Your task to perform on an android device: delete a single message in the gmail app Image 0: 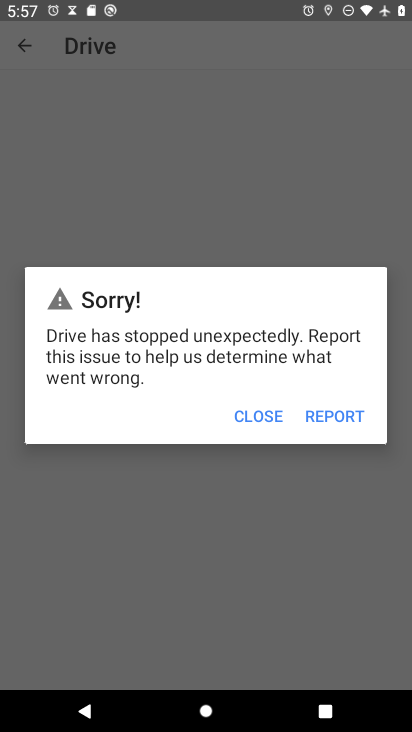
Step 0: press back button
Your task to perform on an android device: delete a single message in the gmail app Image 1: 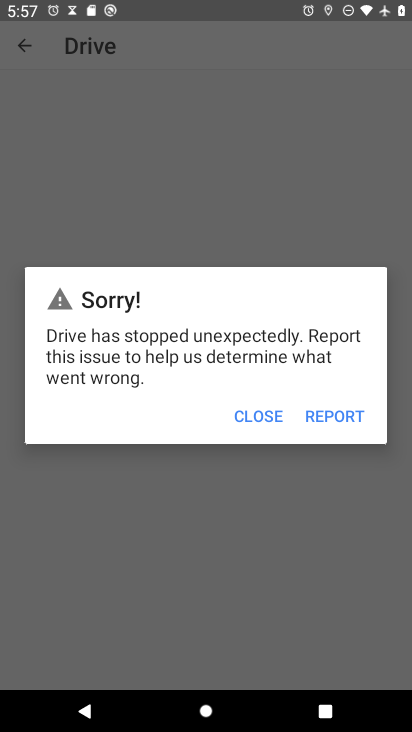
Step 1: press home button
Your task to perform on an android device: delete a single message in the gmail app Image 2: 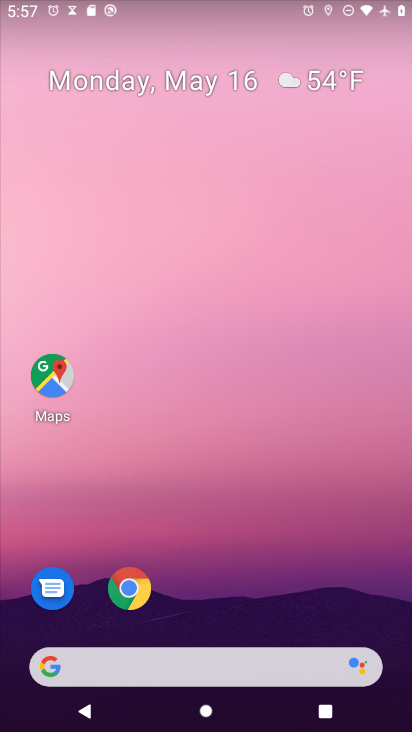
Step 2: drag from (221, 572) to (149, 54)
Your task to perform on an android device: delete a single message in the gmail app Image 3: 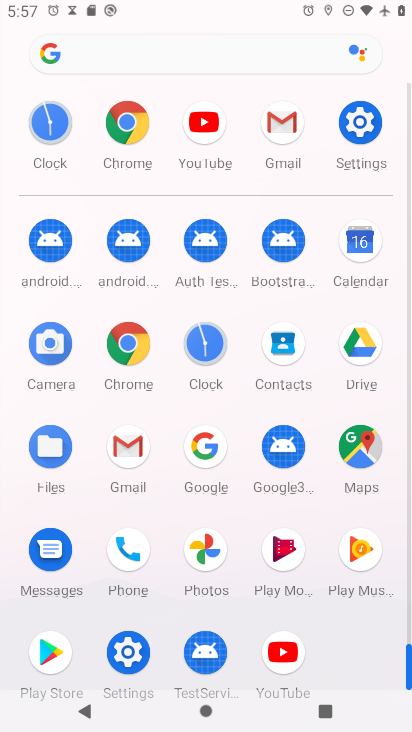
Step 3: click (131, 442)
Your task to perform on an android device: delete a single message in the gmail app Image 4: 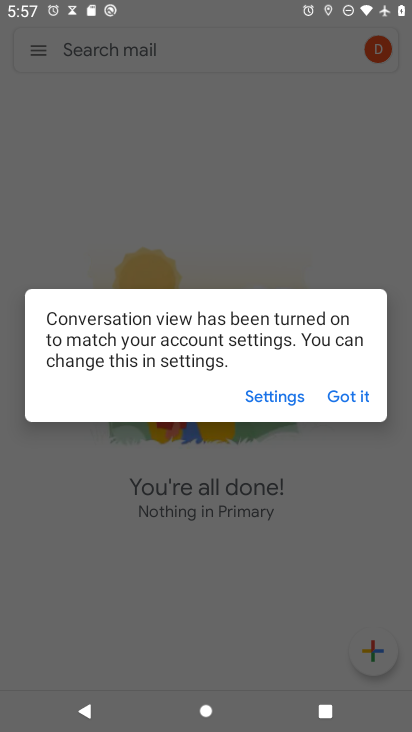
Step 4: click (340, 388)
Your task to perform on an android device: delete a single message in the gmail app Image 5: 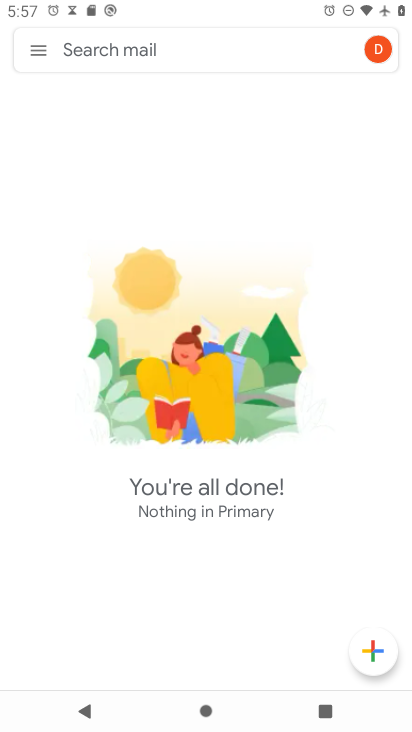
Step 5: click (50, 40)
Your task to perform on an android device: delete a single message in the gmail app Image 6: 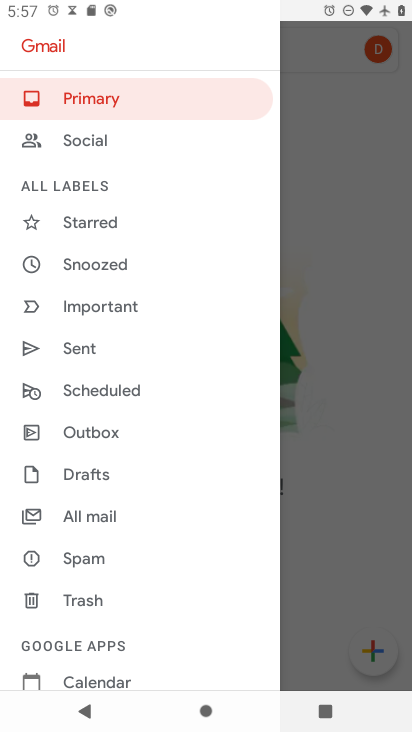
Step 6: click (122, 501)
Your task to perform on an android device: delete a single message in the gmail app Image 7: 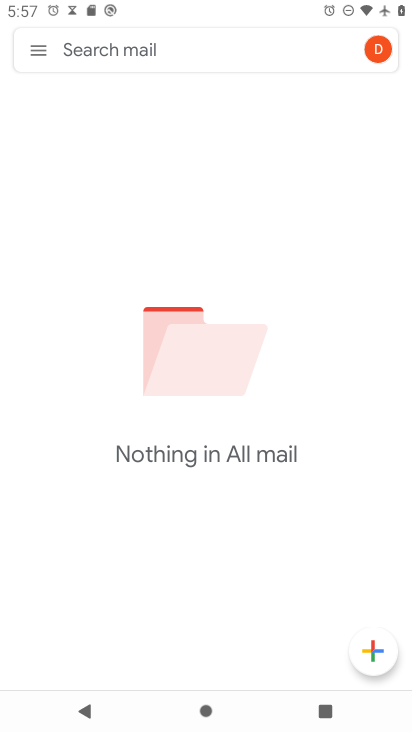
Step 7: click (42, 48)
Your task to perform on an android device: delete a single message in the gmail app Image 8: 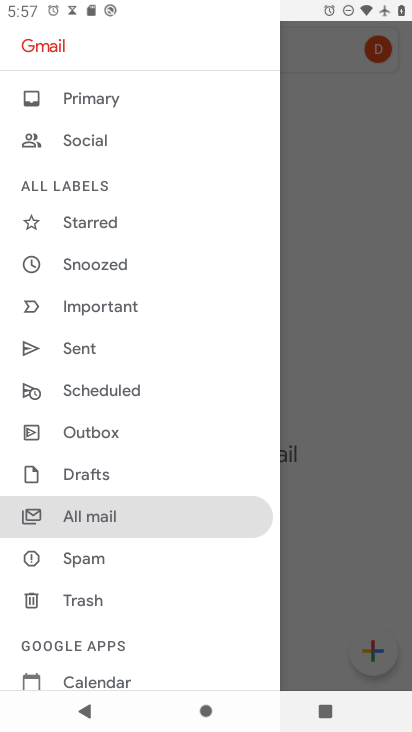
Step 8: click (143, 521)
Your task to perform on an android device: delete a single message in the gmail app Image 9: 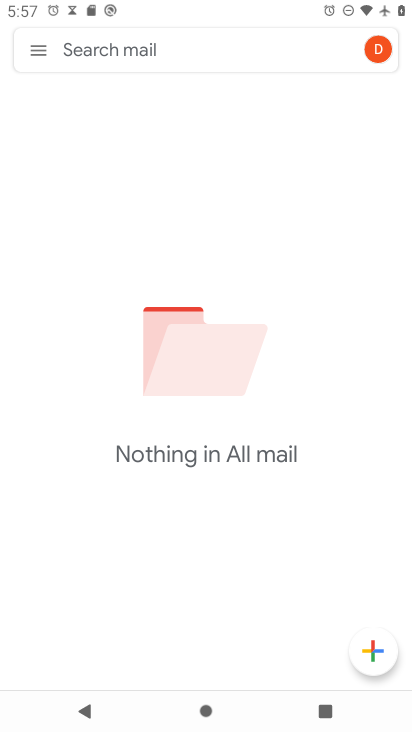
Step 9: click (38, 49)
Your task to perform on an android device: delete a single message in the gmail app Image 10: 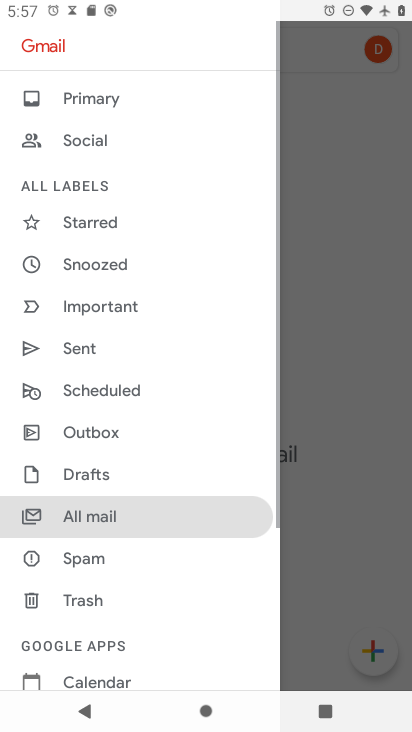
Step 10: drag from (198, 208) to (198, 296)
Your task to perform on an android device: delete a single message in the gmail app Image 11: 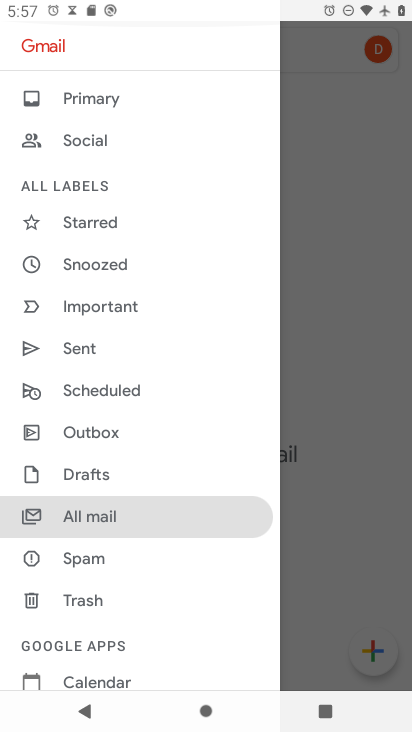
Step 11: click (218, 556)
Your task to perform on an android device: delete a single message in the gmail app Image 12: 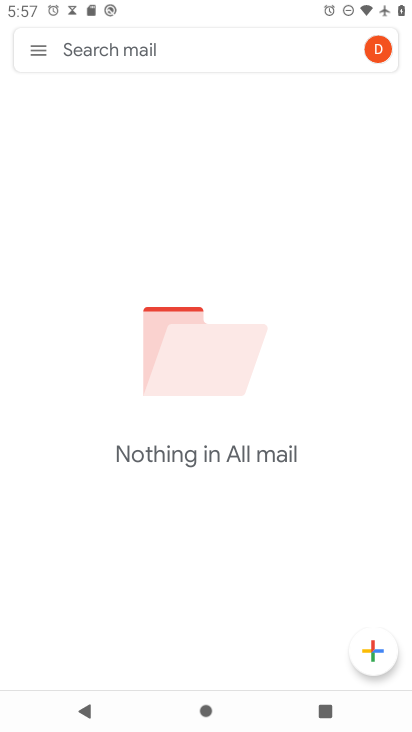
Step 12: click (128, 98)
Your task to perform on an android device: delete a single message in the gmail app Image 13: 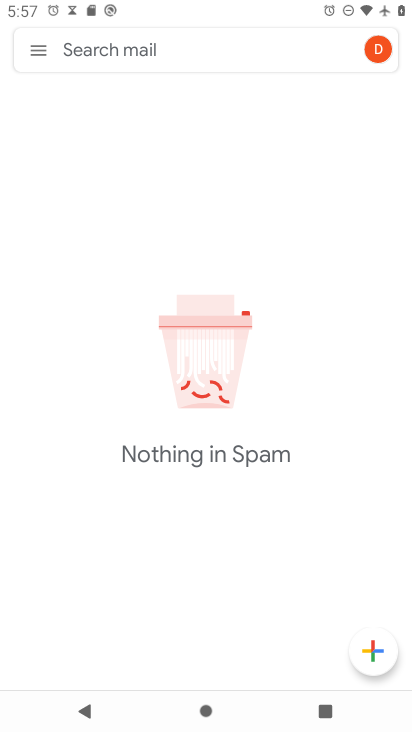
Step 13: click (25, 38)
Your task to perform on an android device: delete a single message in the gmail app Image 14: 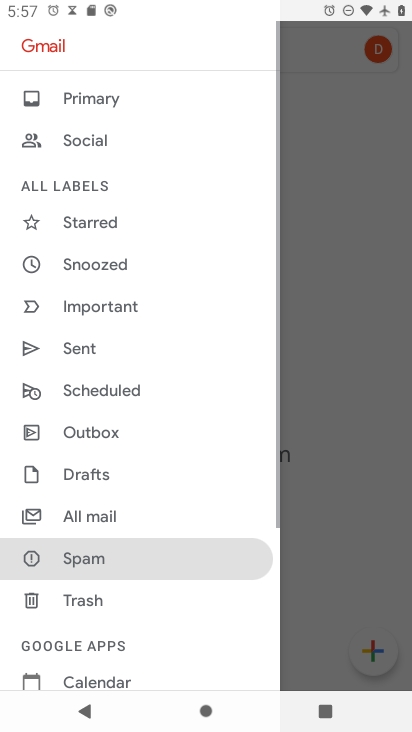
Step 14: click (79, 95)
Your task to perform on an android device: delete a single message in the gmail app Image 15: 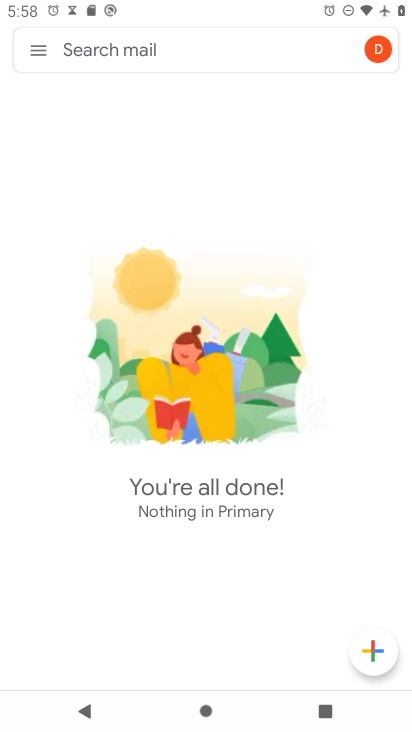
Step 15: click (39, 47)
Your task to perform on an android device: delete a single message in the gmail app Image 16: 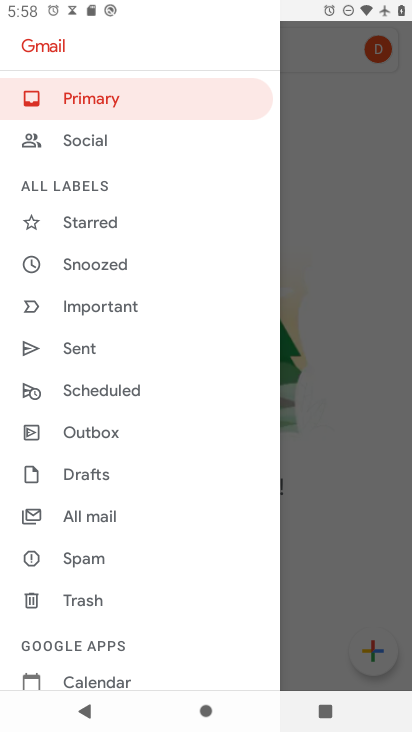
Step 16: click (94, 501)
Your task to perform on an android device: delete a single message in the gmail app Image 17: 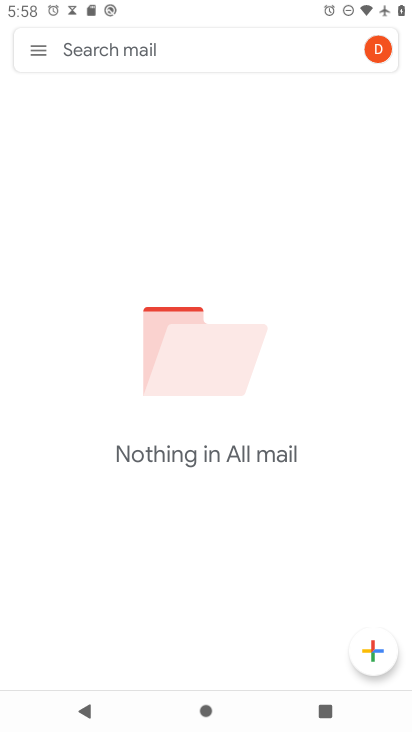
Step 17: task complete